Your task to perform on an android device: Open internet settings Image 0: 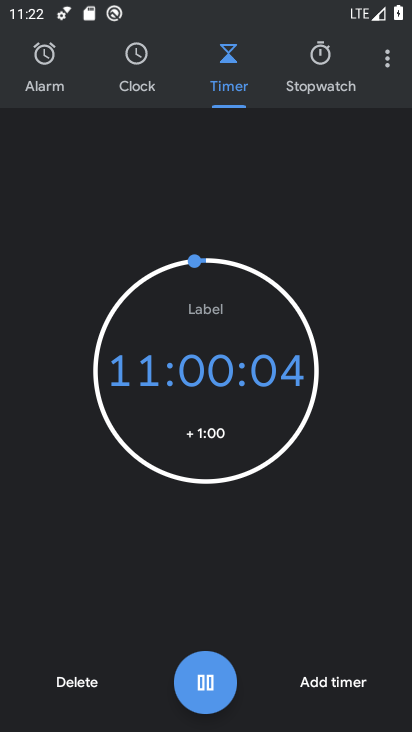
Step 0: press home button
Your task to perform on an android device: Open internet settings Image 1: 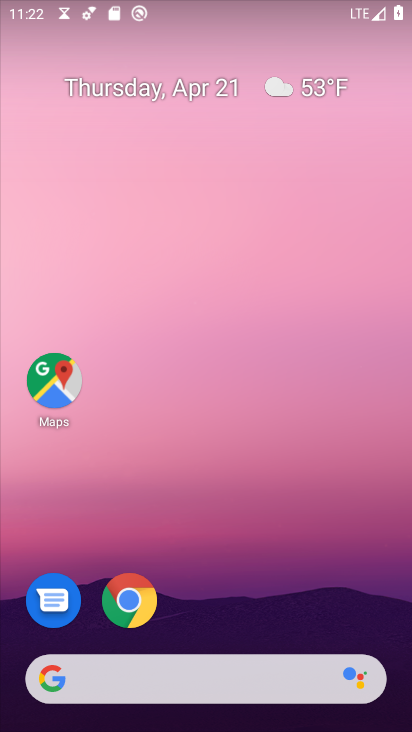
Step 1: drag from (256, 577) to (244, 57)
Your task to perform on an android device: Open internet settings Image 2: 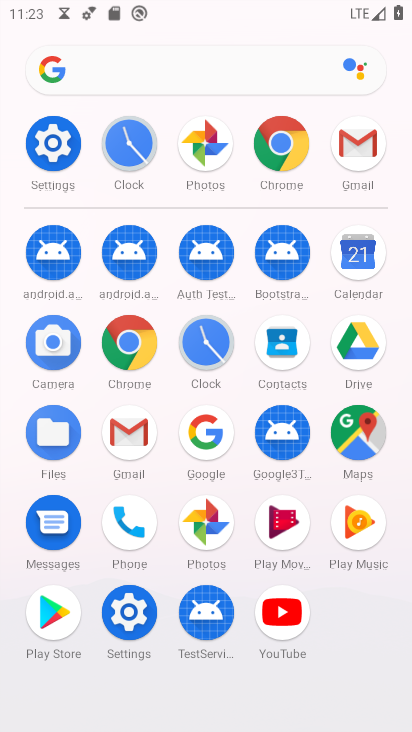
Step 2: click (52, 150)
Your task to perform on an android device: Open internet settings Image 3: 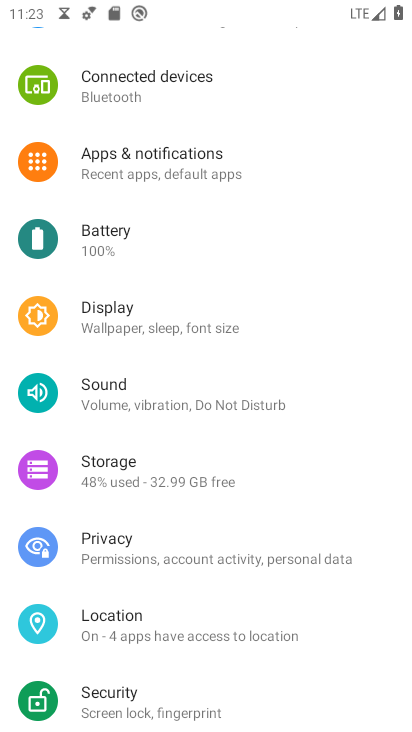
Step 3: drag from (213, 338) to (174, 655)
Your task to perform on an android device: Open internet settings Image 4: 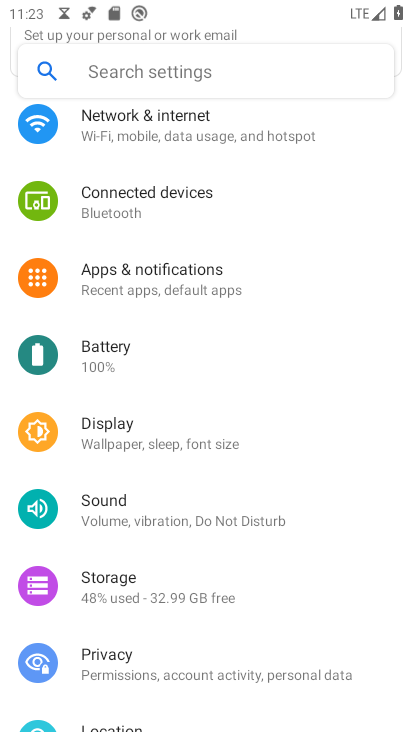
Step 4: click (186, 126)
Your task to perform on an android device: Open internet settings Image 5: 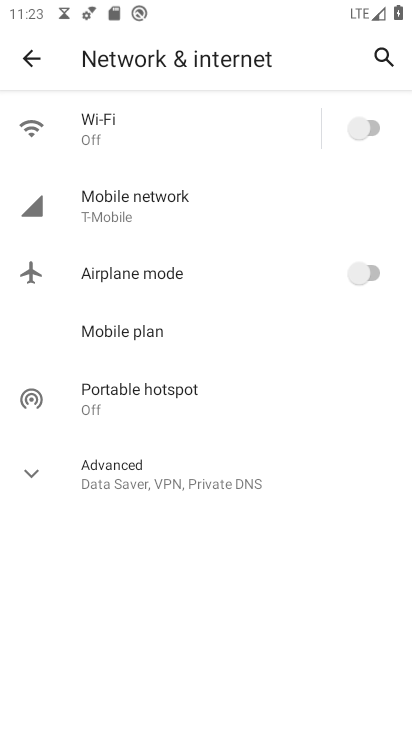
Step 5: task complete